Your task to perform on an android device: Open notification settings Image 0: 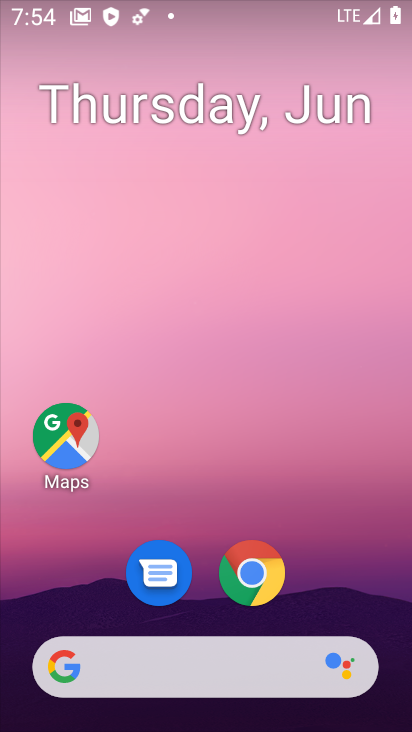
Step 0: drag from (325, 598) to (294, 179)
Your task to perform on an android device: Open notification settings Image 1: 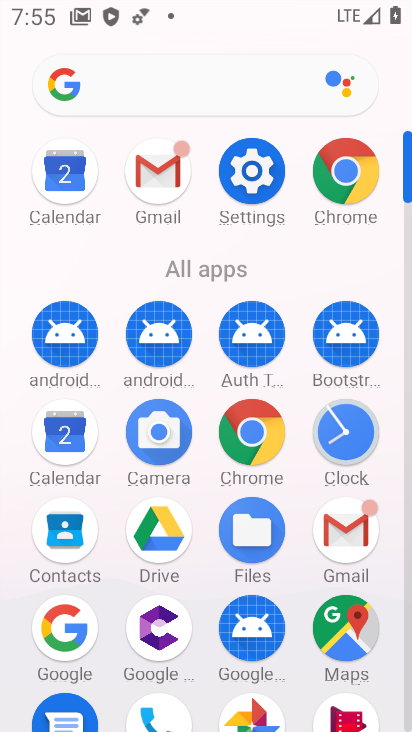
Step 1: click (264, 167)
Your task to perform on an android device: Open notification settings Image 2: 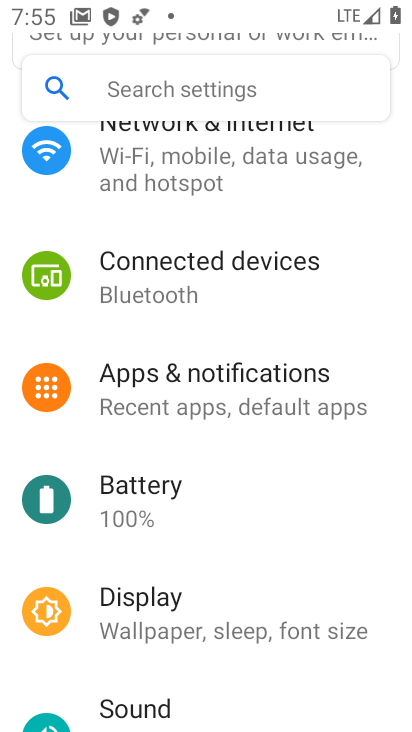
Step 2: click (212, 364)
Your task to perform on an android device: Open notification settings Image 3: 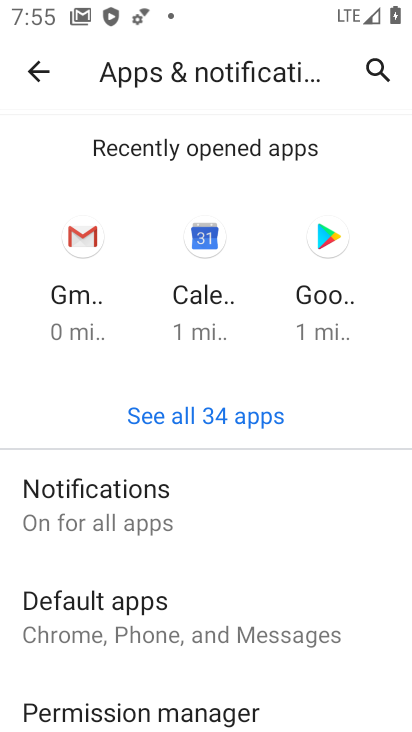
Step 3: click (142, 500)
Your task to perform on an android device: Open notification settings Image 4: 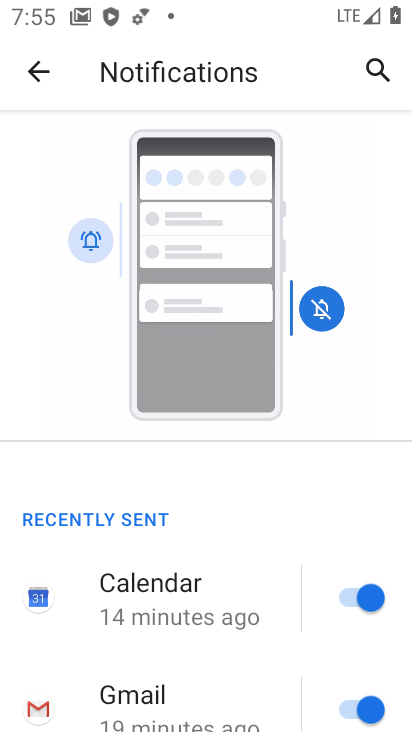
Step 4: task complete